Your task to perform on an android device: open device folders in google photos Image 0: 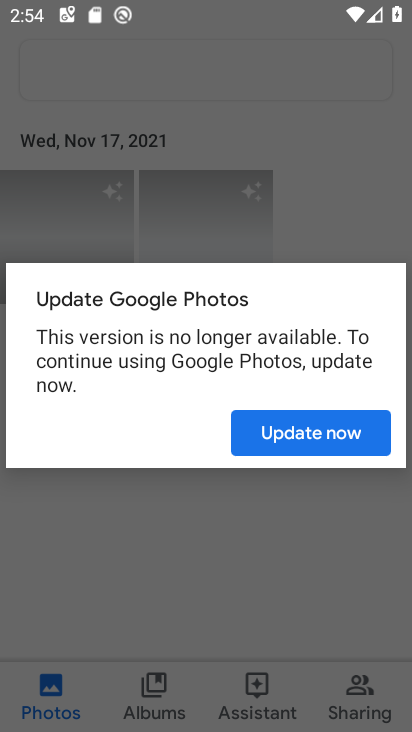
Step 0: press home button
Your task to perform on an android device: open device folders in google photos Image 1: 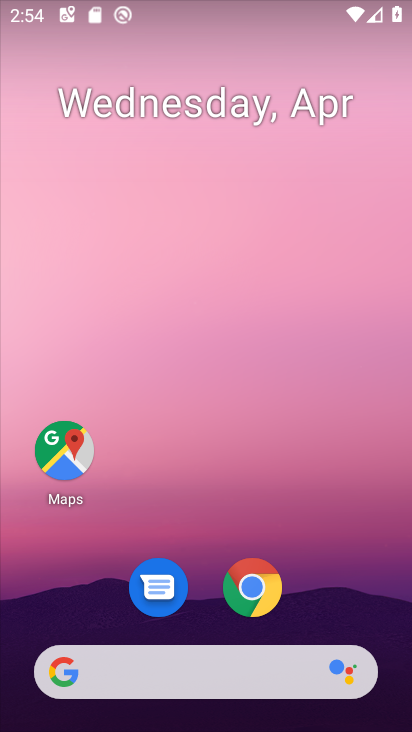
Step 1: drag from (356, 604) to (275, 53)
Your task to perform on an android device: open device folders in google photos Image 2: 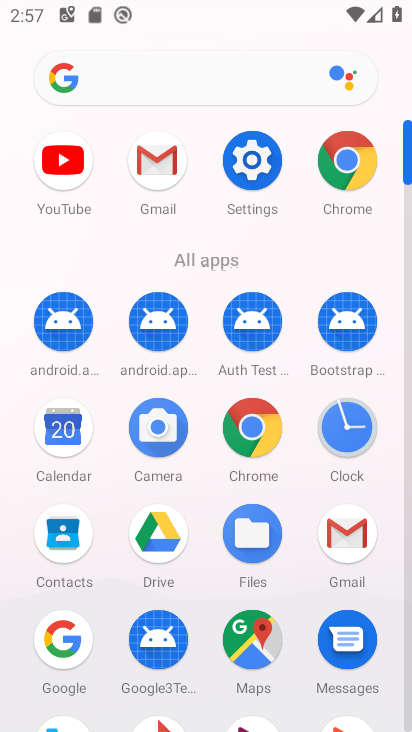
Step 2: click (406, 717)
Your task to perform on an android device: open device folders in google photos Image 3: 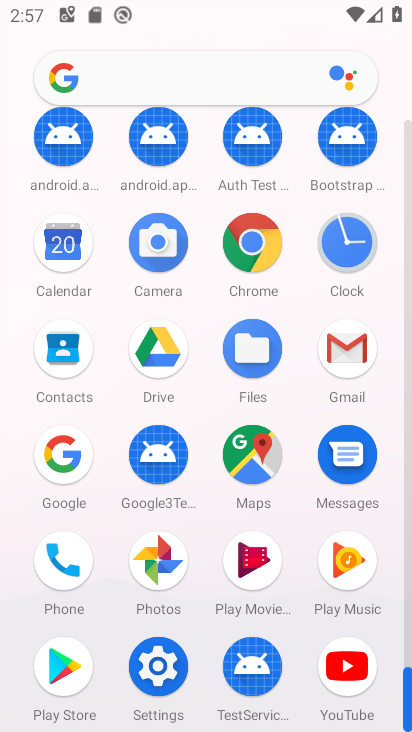
Step 3: click (156, 566)
Your task to perform on an android device: open device folders in google photos Image 4: 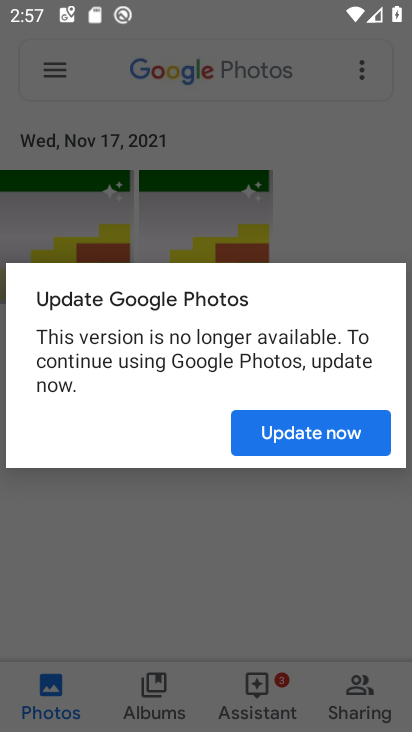
Step 4: click (150, 233)
Your task to perform on an android device: open device folders in google photos Image 5: 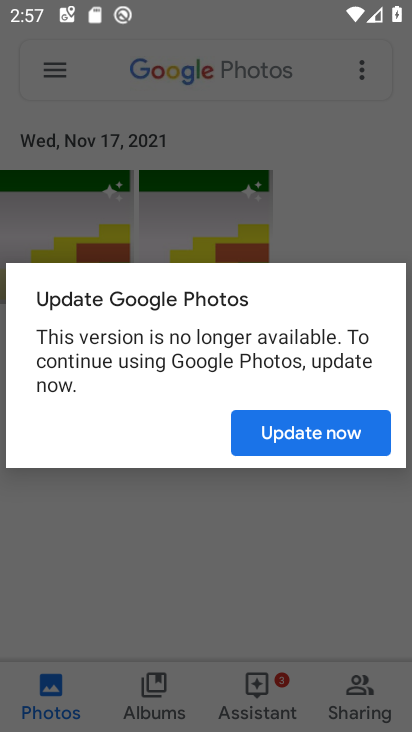
Step 5: click (281, 425)
Your task to perform on an android device: open device folders in google photos Image 6: 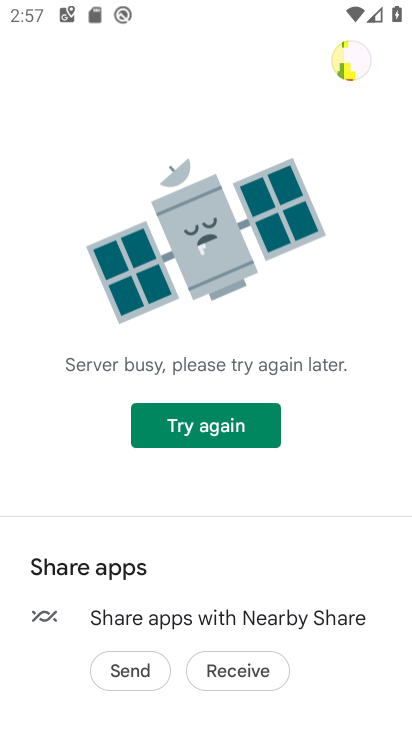
Step 6: task complete